Your task to perform on an android device: Search for Italian restaurants on Maps Image 0: 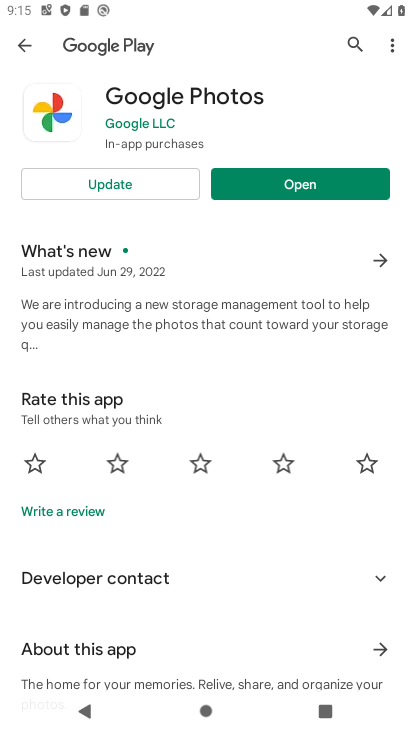
Step 0: press home button
Your task to perform on an android device: Search for Italian restaurants on Maps Image 1: 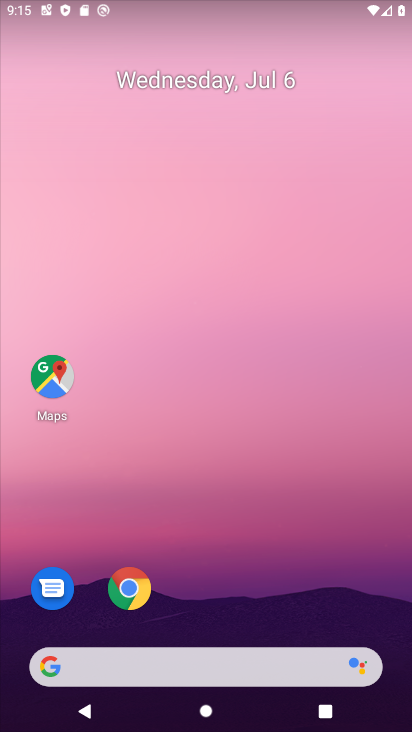
Step 1: click (56, 369)
Your task to perform on an android device: Search for Italian restaurants on Maps Image 2: 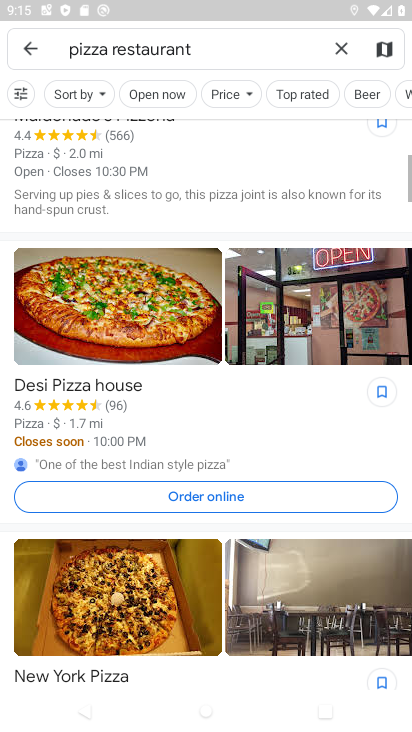
Step 2: click (343, 47)
Your task to perform on an android device: Search for Italian restaurants on Maps Image 3: 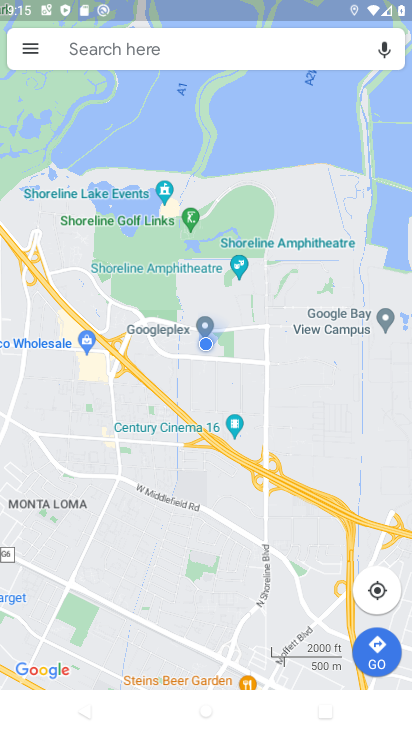
Step 3: click (192, 47)
Your task to perform on an android device: Search for Italian restaurants on Maps Image 4: 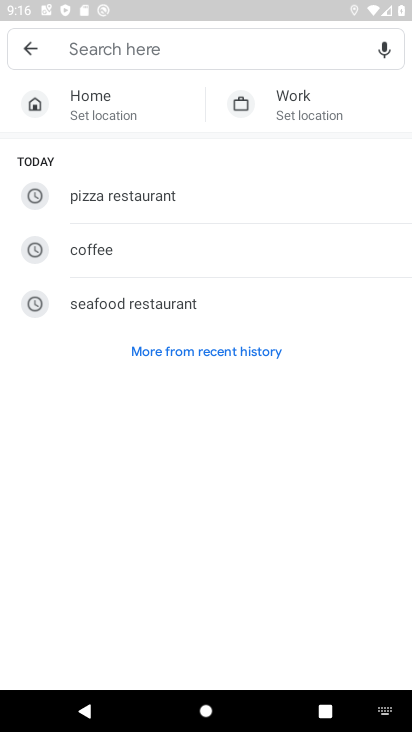
Step 4: type "Italian restaurants"
Your task to perform on an android device: Search for Italian restaurants on Maps Image 5: 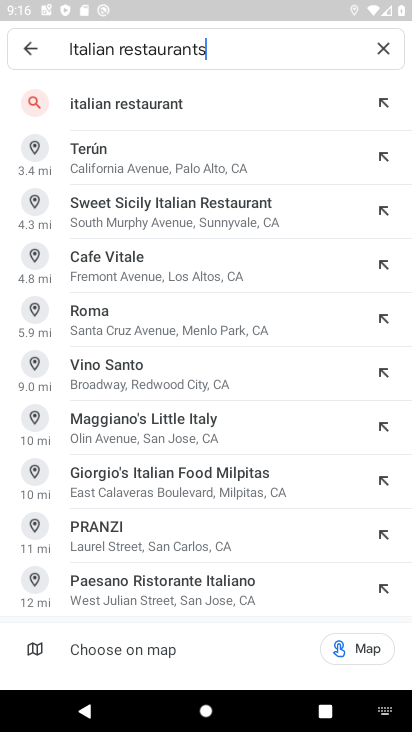
Step 5: click (175, 106)
Your task to perform on an android device: Search for Italian restaurants on Maps Image 6: 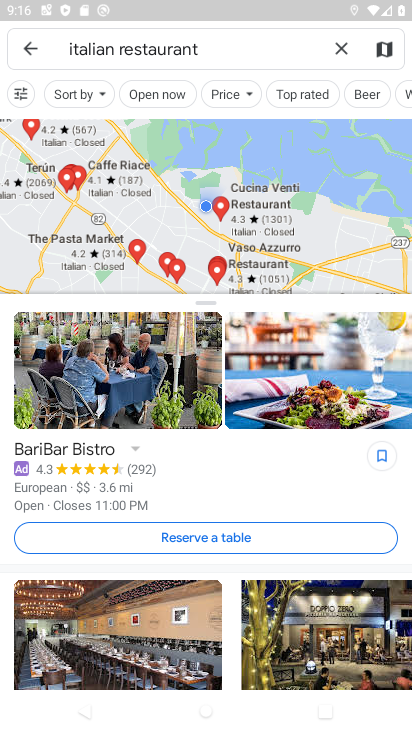
Step 6: task complete